Your task to perform on an android device: turn on bluetooth scan Image 0: 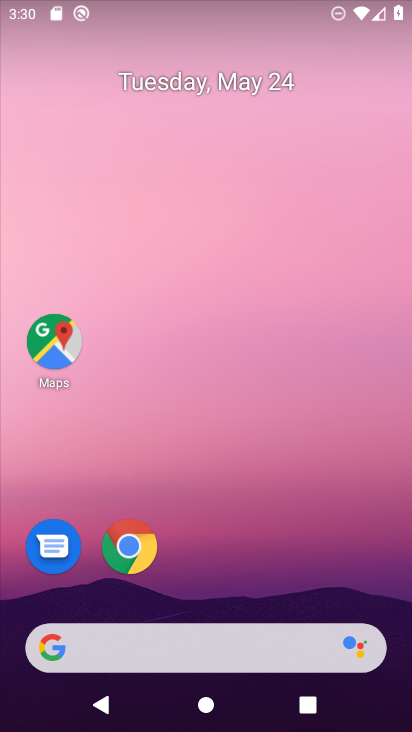
Step 0: drag from (284, 384) to (214, 18)
Your task to perform on an android device: turn on bluetooth scan Image 1: 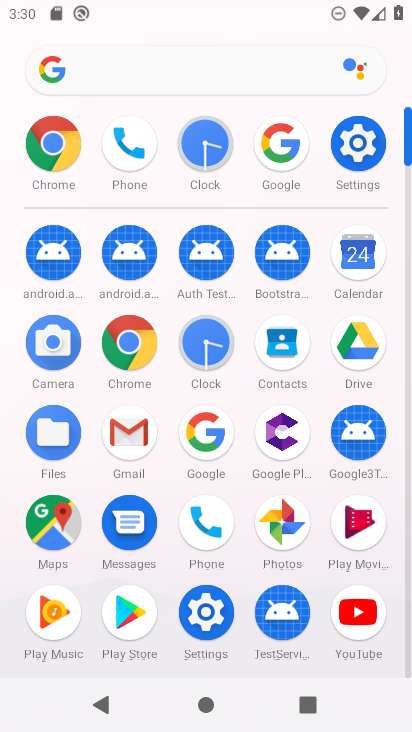
Step 1: click (357, 139)
Your task to perform on an android device: turn on bluetooth scan Image 2: 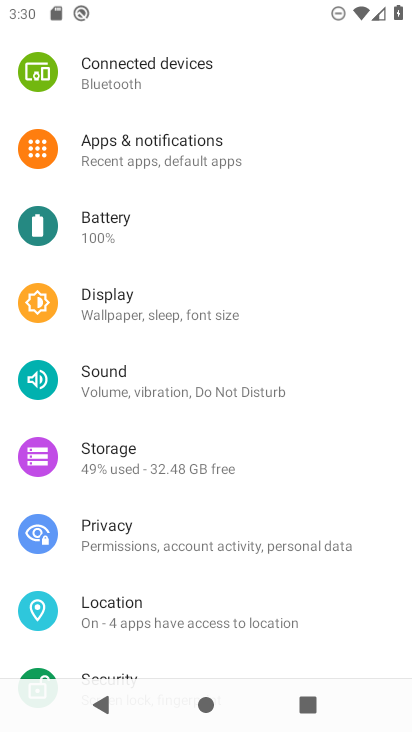
Step 2: click (224, 603)
Your task to perform on an android device: turn on bluetooth scan Image 3: 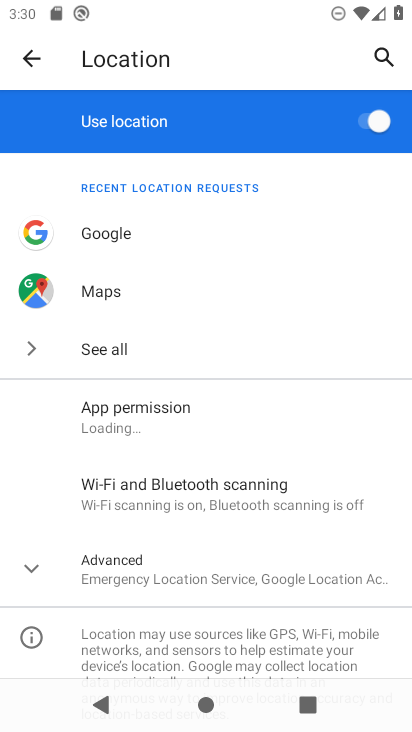
Step 3: click (275, 492)
Your task to perform on an android device: turn on bluetooth scan Image 4: 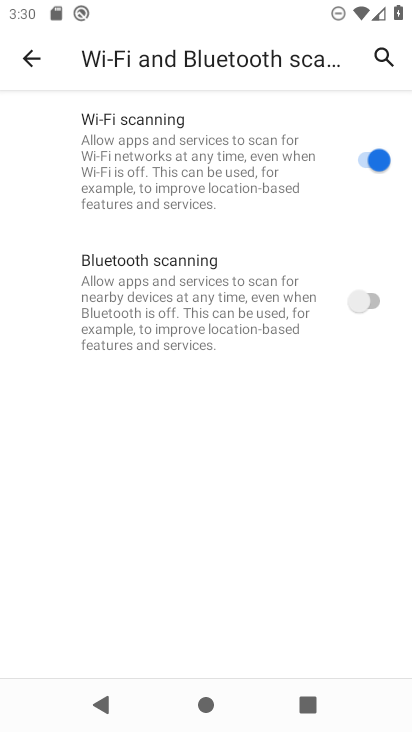
Step 4: click (364, 297)
Your task to perform on an android device: turn on bluetooth scan Image 5: 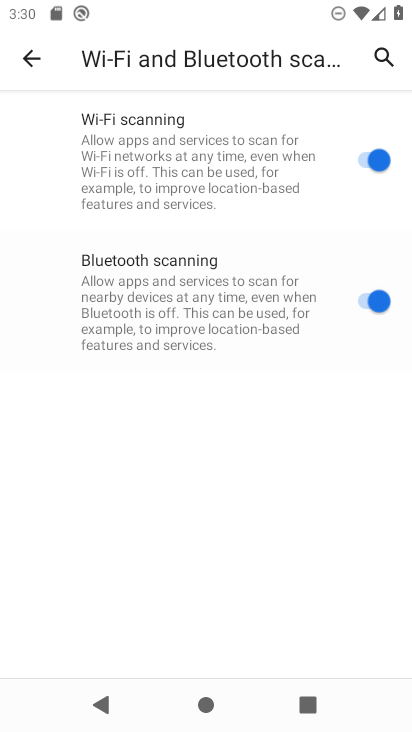
Step 5: task complete